Your task to perform on an android device: allow notifications from all sites in the chrome app Image 0: 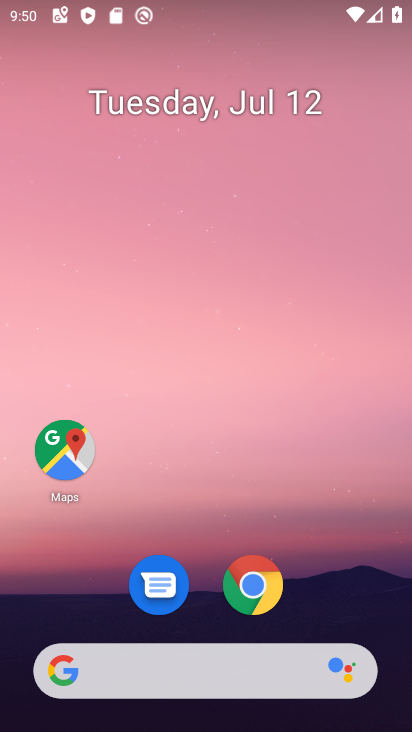
Step 0: press home button
Your task to perform on an android device: allow notifications from all sites in the chrome app Image 1: 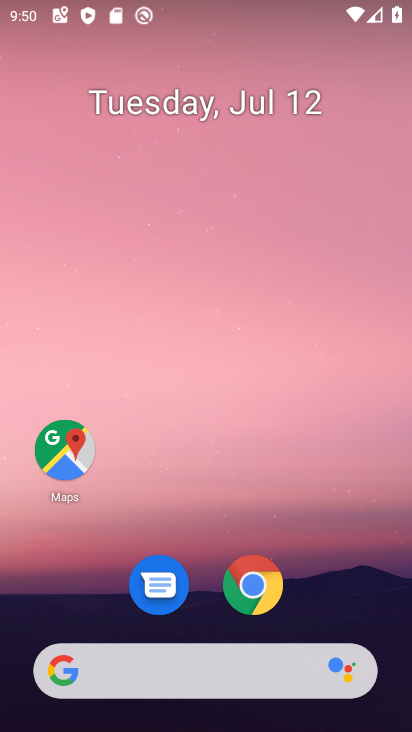
Step 1: click (261, 600)
Your task to perform on an android device: allow notifications from all sites in the chrome app Image 2: 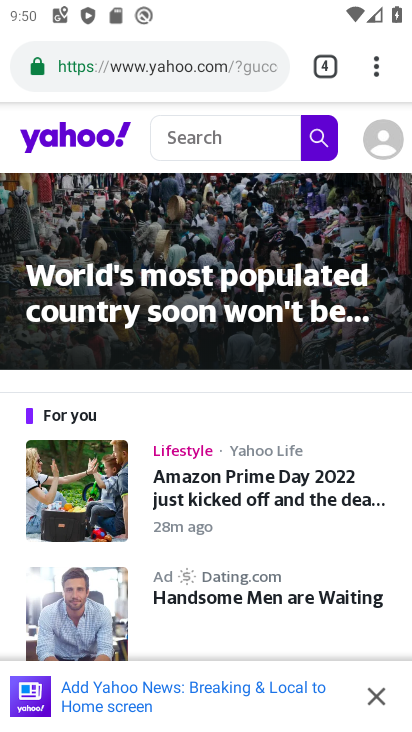
Step 2: drag from (377, 61) to (194, 594)
Your task to perform on an android device: allow notifications from all sites in the chrome app Image 3: 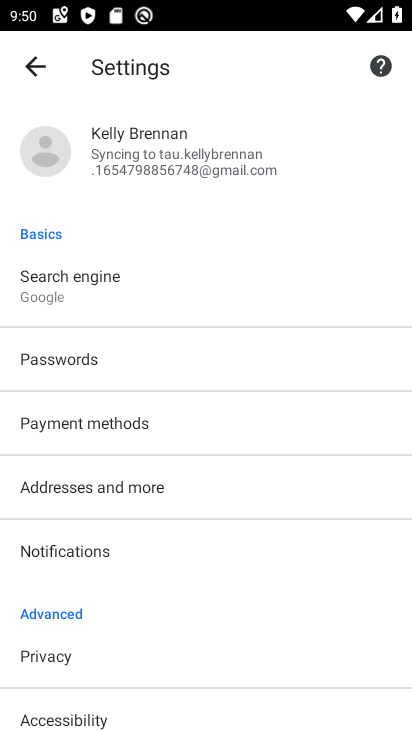
Step 3: drag from (174, 626) to (276, 200)
Your task to perform on an android device: allow notifications from all sites in the chrome app Image 4: 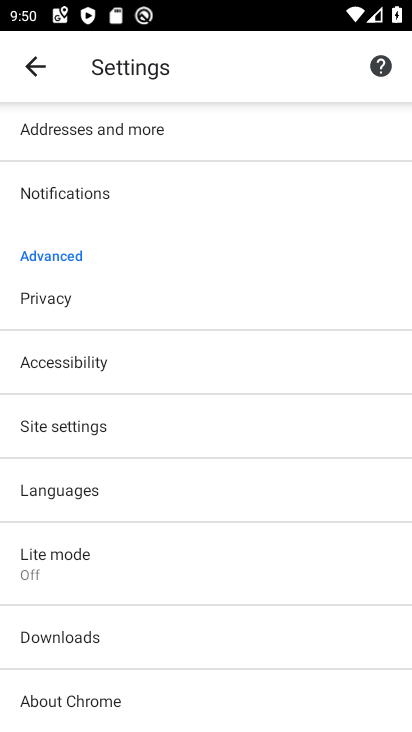
Step 4: click (127, 439)
Your task to perform on an android device: allow notifications from all sites in the chrome app Image 5: 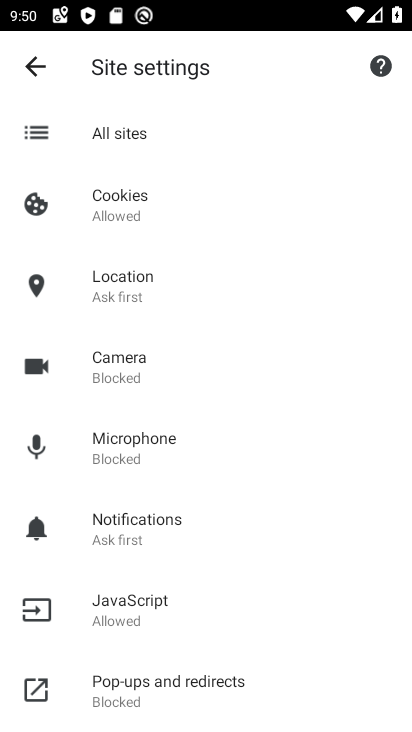
Step 5: click (174, 535)
Your task to perform on an android device: allow notifications from all sites in the chrome app Image 6: 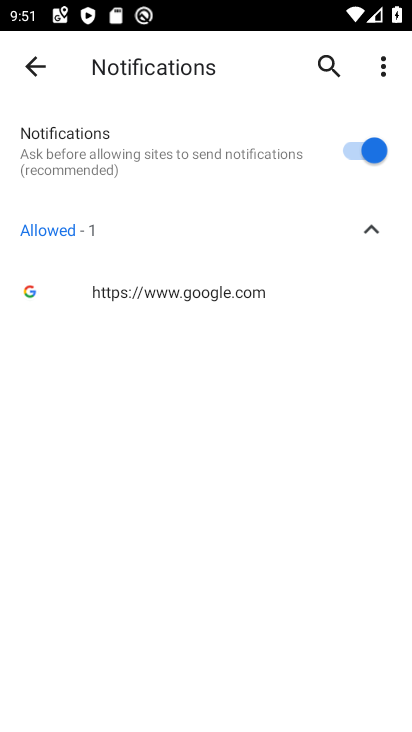
Step 6: task complete